Your task to perform on an android device: Go to Yahoo.com Image 0: 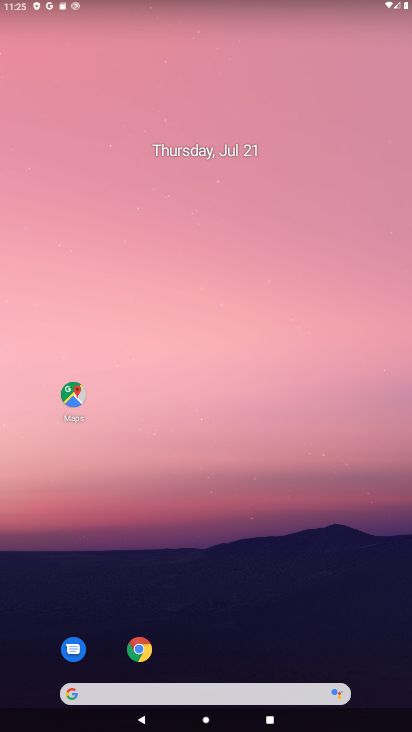
Step 0: click (140, 650)
Your task to perform on an android device: Go to Yahoo.com Image 1: 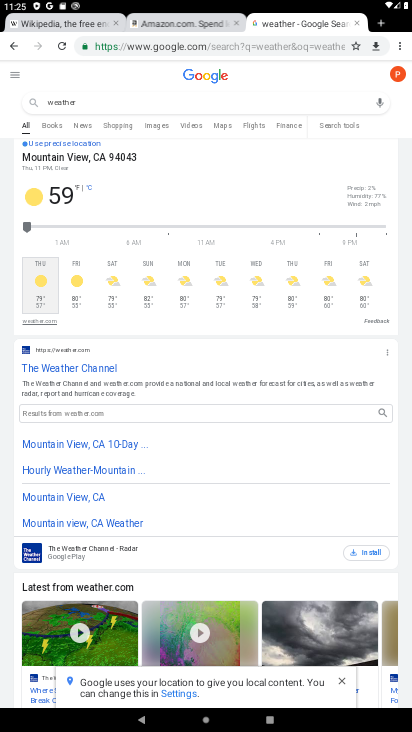
Step 1: click (399, 48)
Your task to perform on an android device: Go to Yahoo.com Image 2: 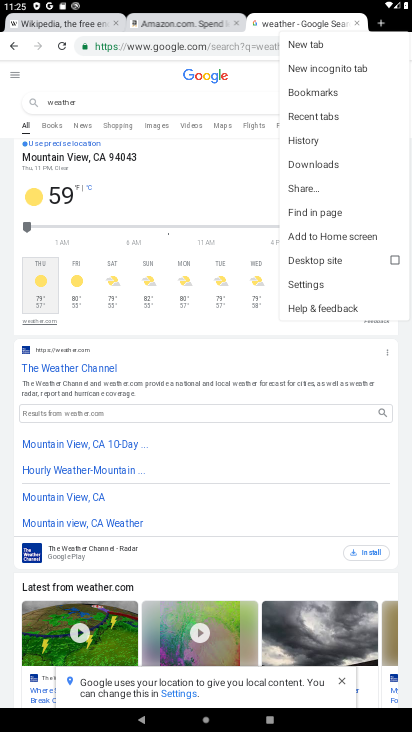
Step 2: click (312, 47)
Your task to perform on an android device: Go to Yahoo.com Image 3: 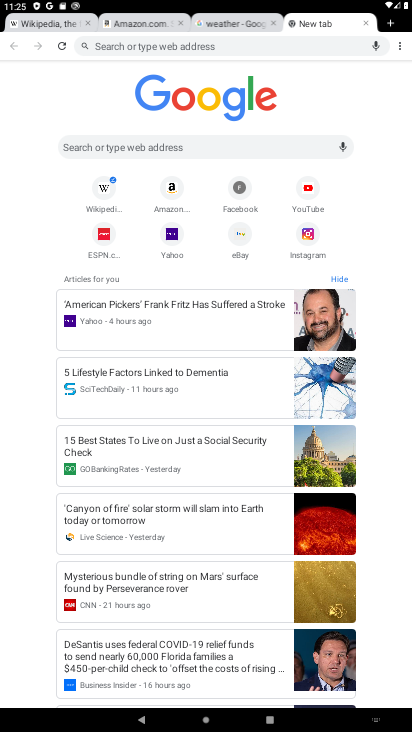
Step 3: click (169, 236)
Your task to perform on an android device: Go to Yahoo.com Image 4: 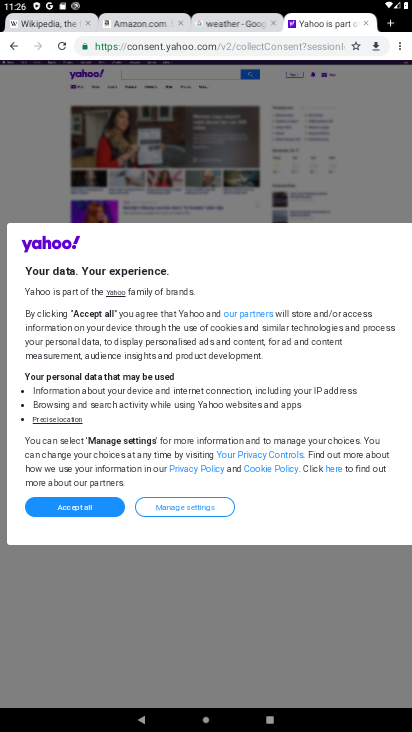
Step 4: click (88, 508)
Your task to perform on an android device: Go to Yahoo.com Image 5: 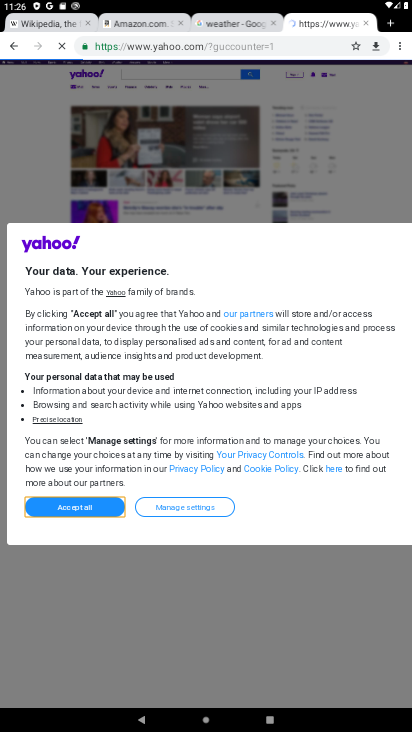
Step 5: task complete